Your task to perform on an android device: toggle airplane mode Image 0: 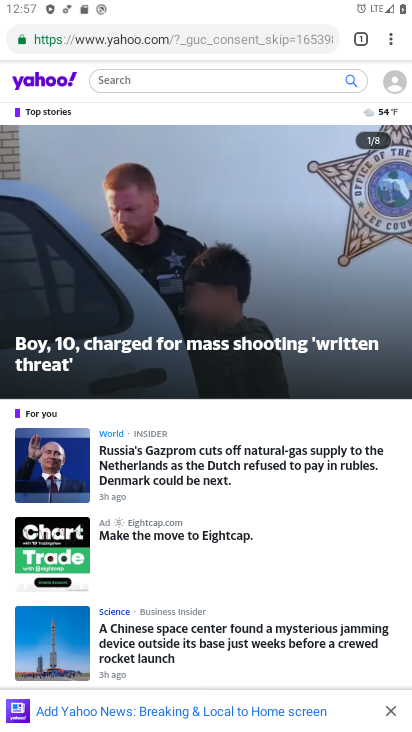
Step 0: press home button
Your task to perform on an android device: toggle airplane mode Image 1: 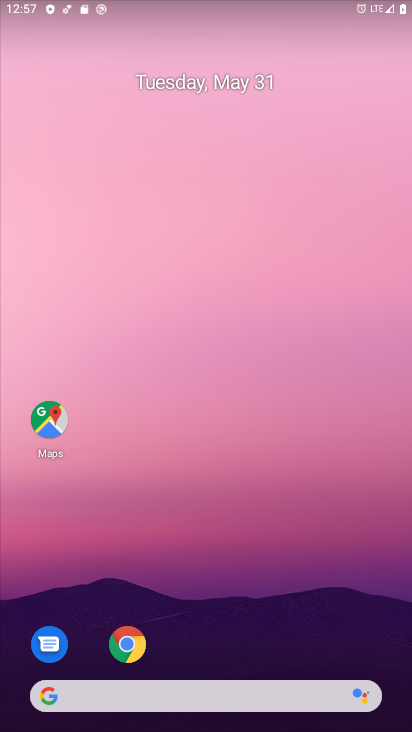
Step 1: drag from (177, 455) to (220, 154)
Your task to perform on an android device: toggle airplane mode Image 2: 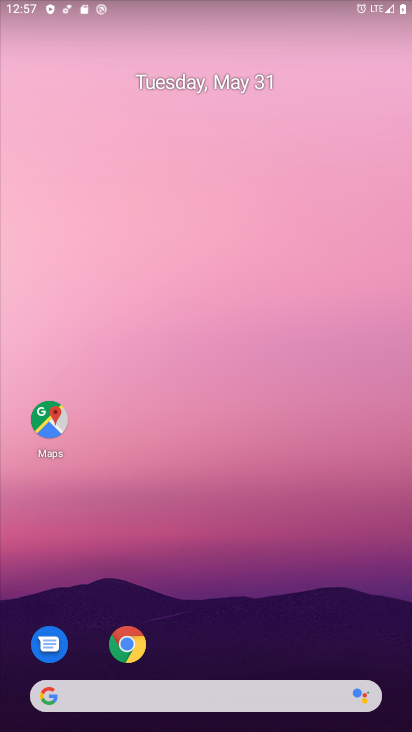
Step 2: drag from (242, 640) to (285, 194)
Your task to perform on an android device: toggle airplane mode Image 3: 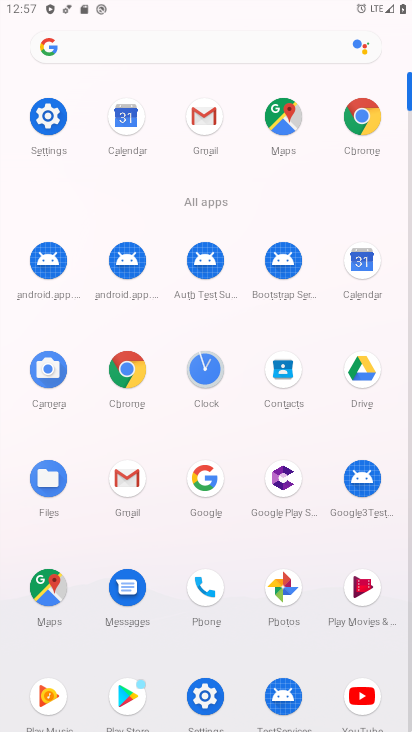
Step 3: click (50, 114)
Your task to perform on an android device: toggle airplane mode Image 4: 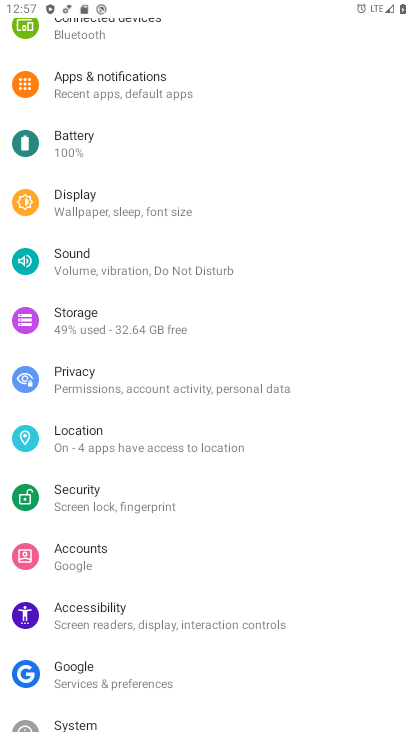
Step 4: drag from (173, 172) to (222, 648)
Your task to perform on an android device: toggle airplane mode Image 5: 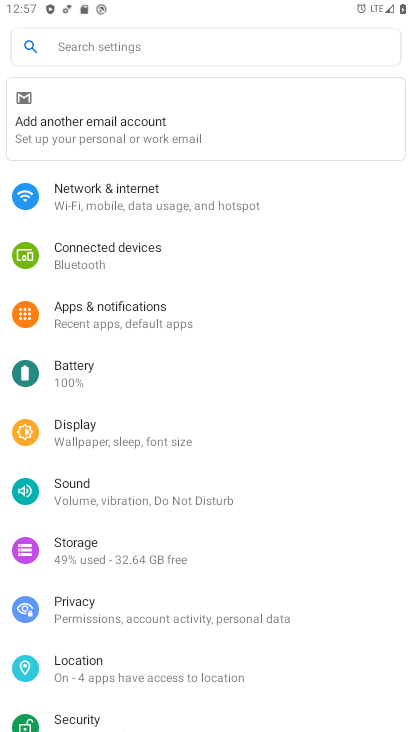
Step 5: click (140, 194)
Your task to perform on an android device: toggle airplane mode Image 6: 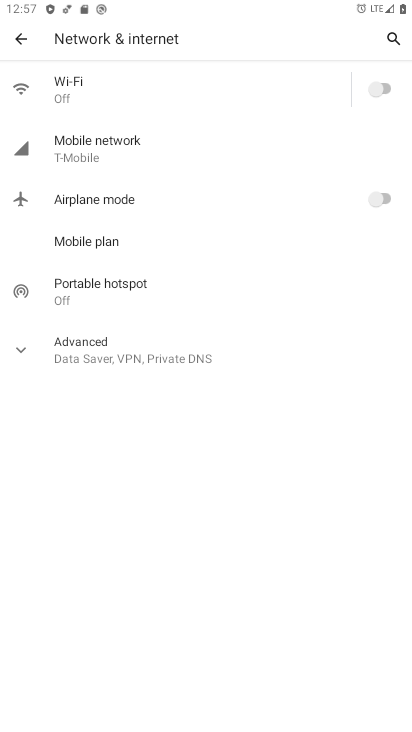
Step 6: click (391, 197)
Your task to perform on an android device: toggle airplane mode Image 7: 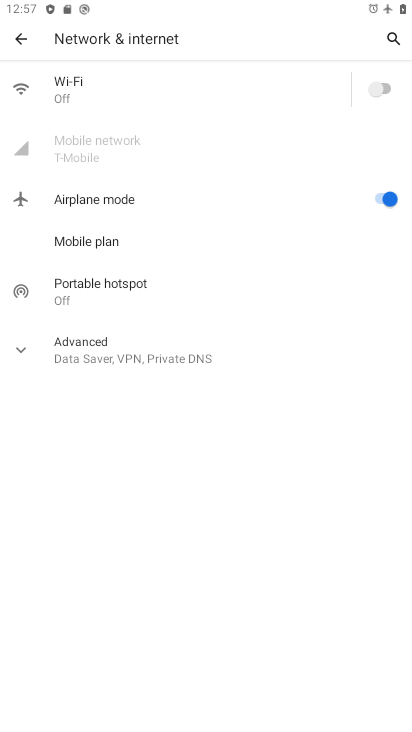
Step 7: task complete